Your task to perform on an android device: Search for sushi restaurants on Maps Image 0: 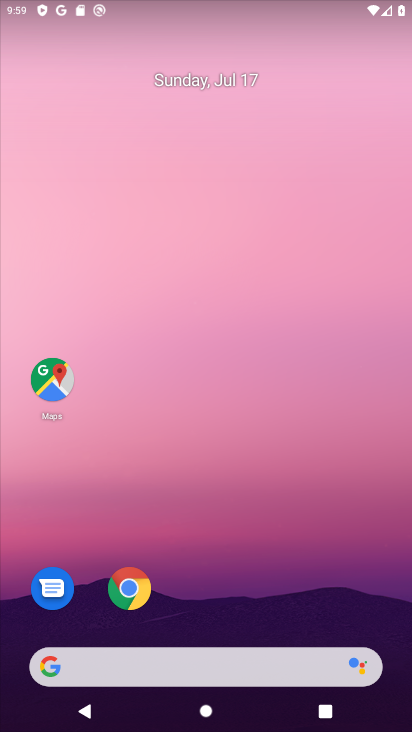
Step 0: click (57, 398)
Your task to perform on an android device: Search for sushi restaurants on Maps Image 1: 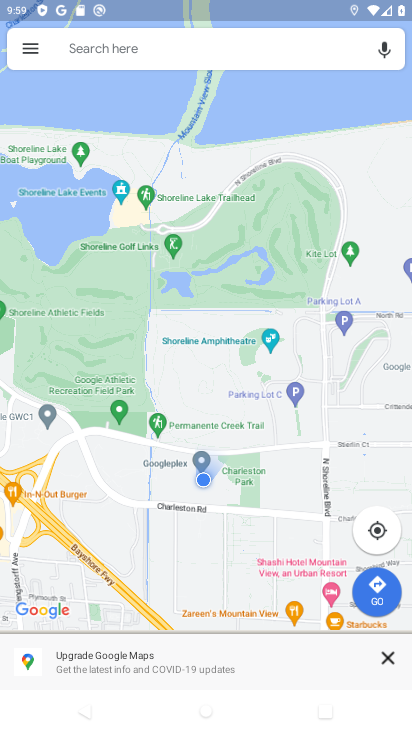
Step 1: click (161, 62)
Your task to perform on an android device: Search for sushi restaurants on Maps Image 2: 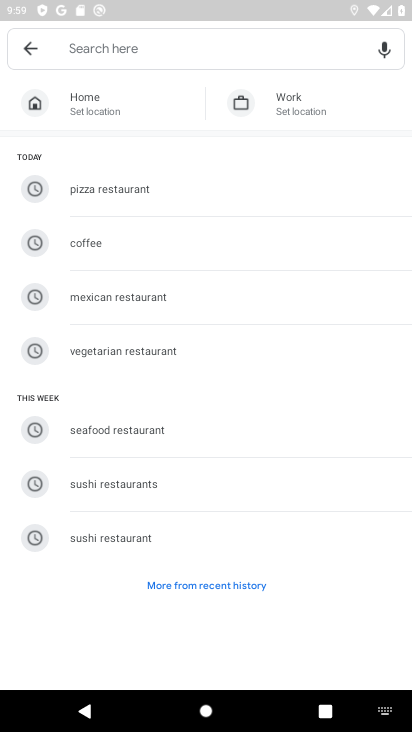
Step 2: type "sushi restaurants"
Your task to perform on an android device: Search for sushi restaurants on Maps Image 3: 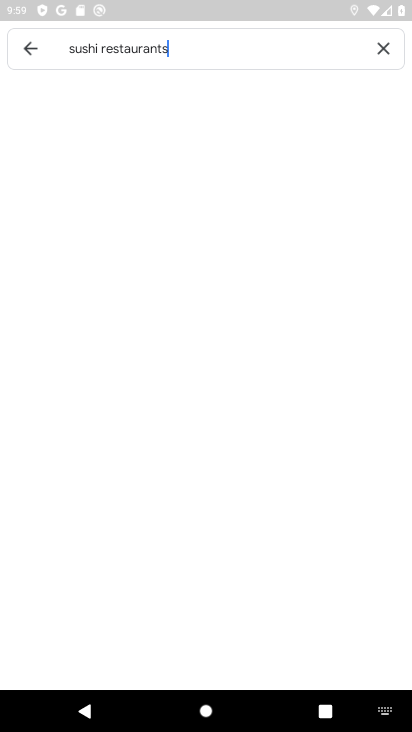
Step 3: type ""
Your task to perform on an android device: Search for sushi restaurants on Maps Image 4: 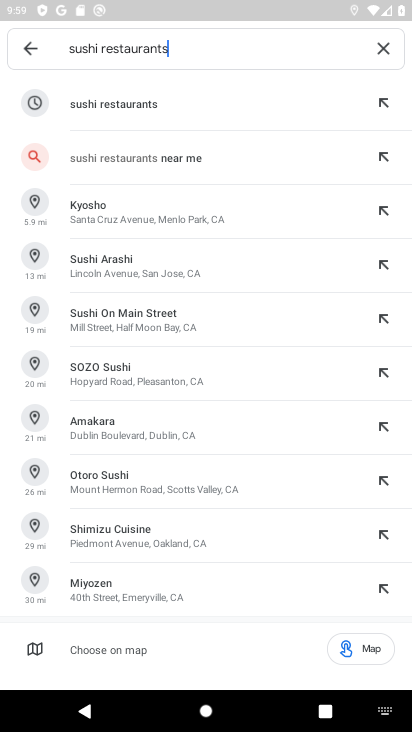
Step 4: click (201, 120)
Your task to perform on an android device: Search for sushi restaurants on Maps Image 5: 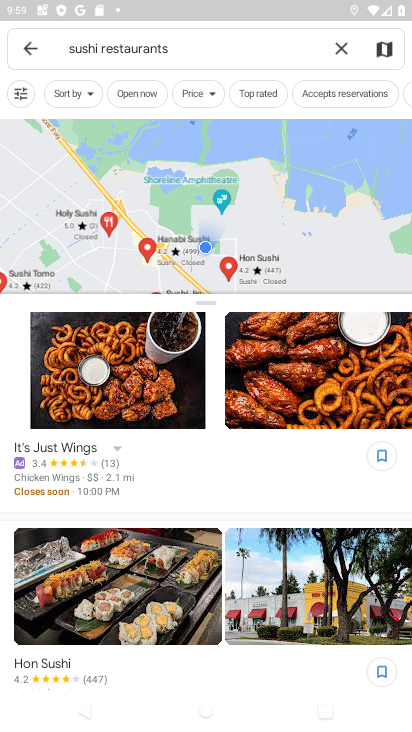
Step 5: task complete